Your task to perform on an android device: toggle data saver in the chrome app Image 0: 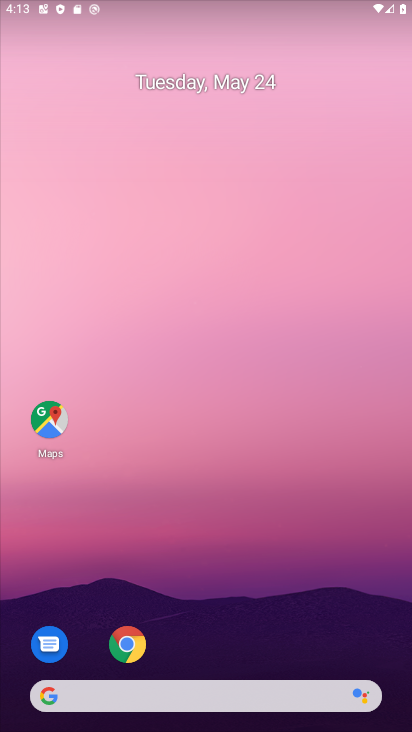
Step 0: drag from (276, 548) to (260, 9)
Your task to perform on an android device: toggle data saver in the chrome app Image 1: 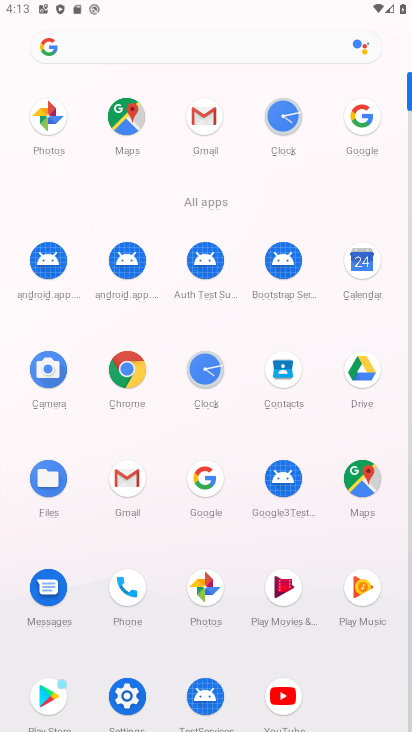
Step 1: click (124, 363)
Your task to perform on an android device: toggle data saver in the chrome app Image 2: 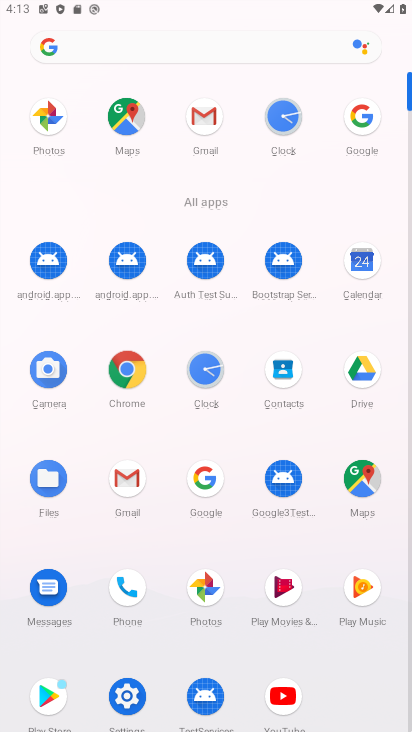
Step 2: click (125, 364)
Your task to perform on an android device: toggle data saver in the chrome app Image 3: 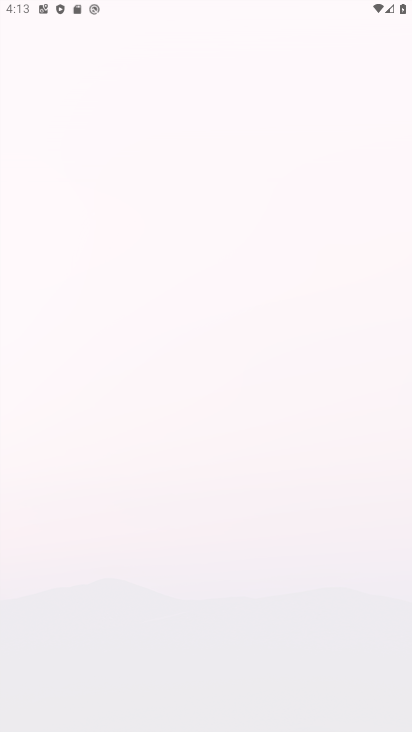
Step 3: click (126, 366)
Your task to perform on an android device: toggle data saver in the chrome app Image 4: 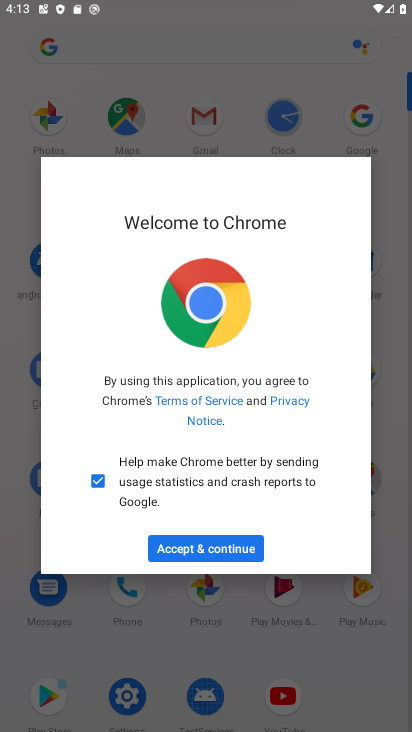
Step 4: click (211, 534)
Your task to perform on an android device: toggle data saver in the chrome app Image 5: 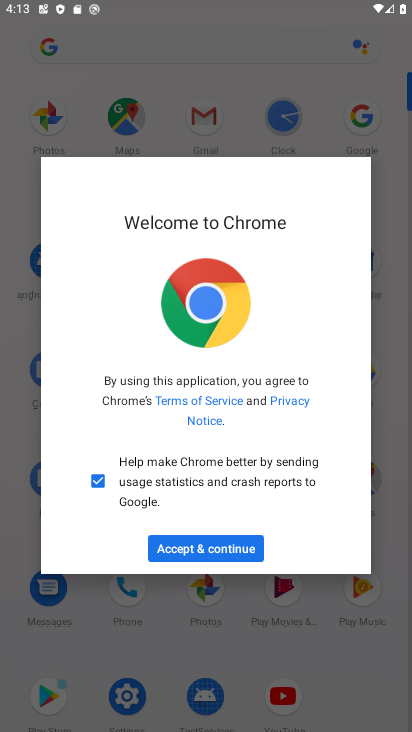
Step 5: click (208, 548)
Your task to perform on an android device: toggle data saver in the chrome app Image 6: 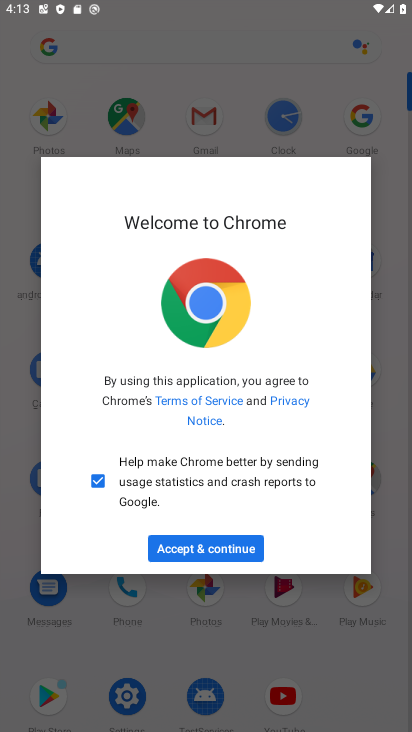
Step 6: click (209, 549)
Your task to perform on an android device: toggle data saver in the chrome app Image 7: 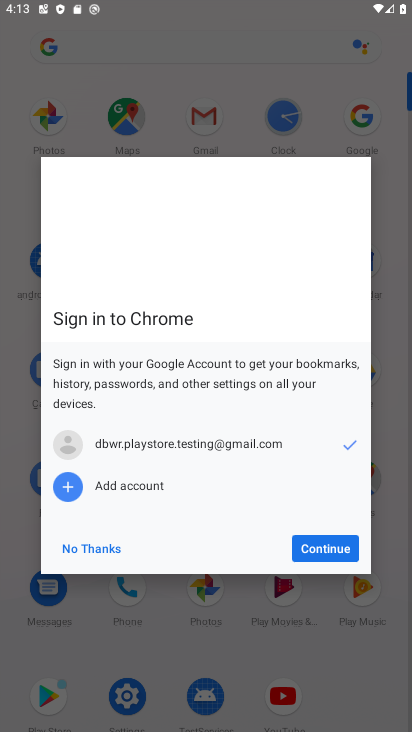
Step 7: click (209, 549)
Your task to perform on an android device: toggle data saver in the chrome app Image 8: 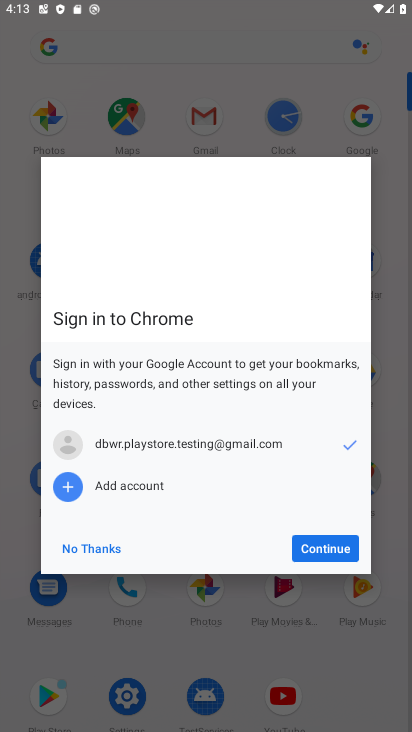
Step 8: click (210, 549)
Your task to perform on an android device: toggle data saver in the chrome app Image 9: 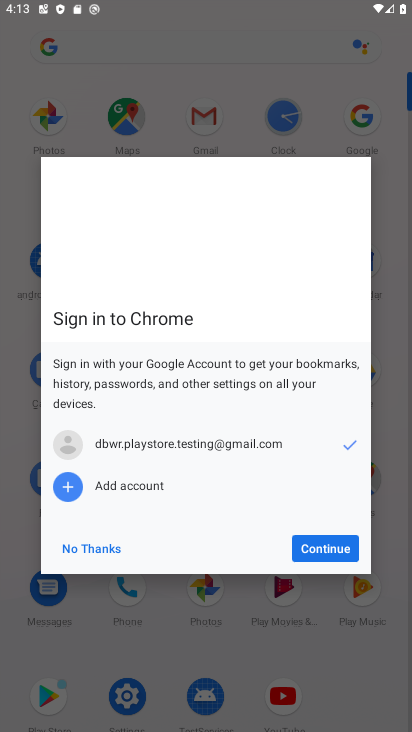
Step 9: click (338, 553)
Your task to perform on an android device: toggle data saver in the chrome app Image 10: 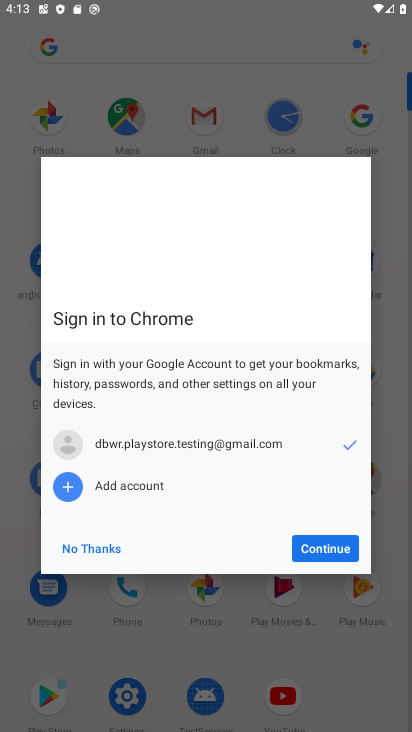
Step 10: click (338, 553)
Your task to perform on an android device: toggle data saver in the chrome app Image 11: 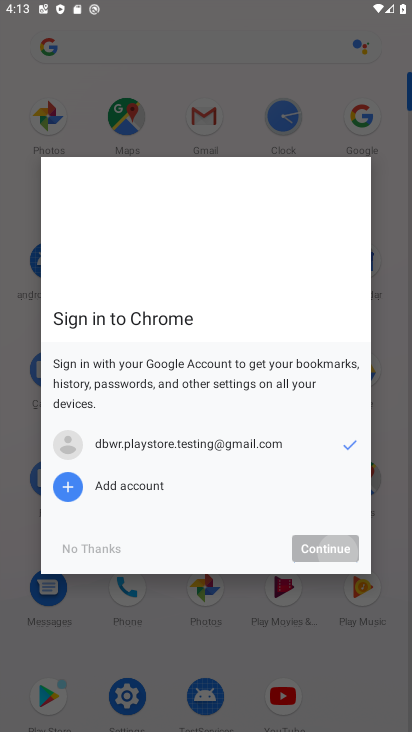
Step 11: click (338, 553)
Your task to perform on an android device: toggle data saver in the chrome app Image 12: 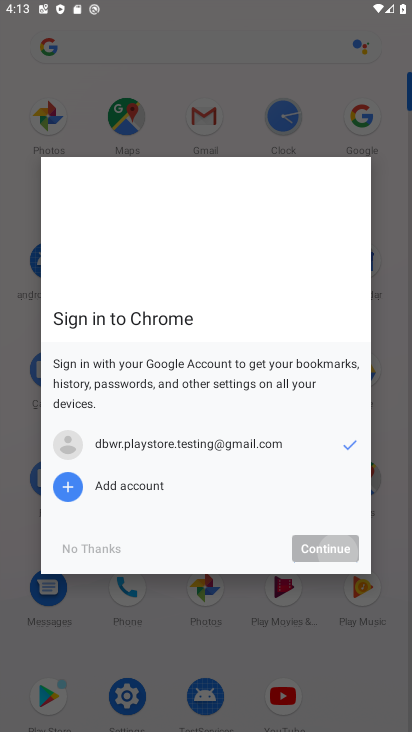
Step 12: click (338, 553)
Your task to perform on an android device: toggle data saver in the chrome app Image 13: 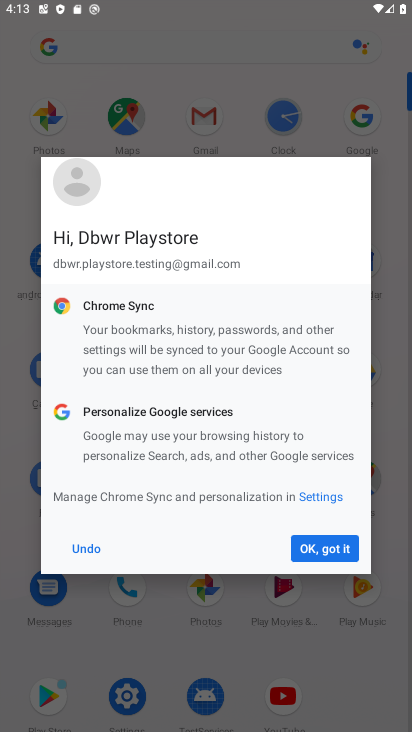
Step 13: click (338, 553)
Your task to perform on an android device: toggle data saver in the chrome app Image 14: 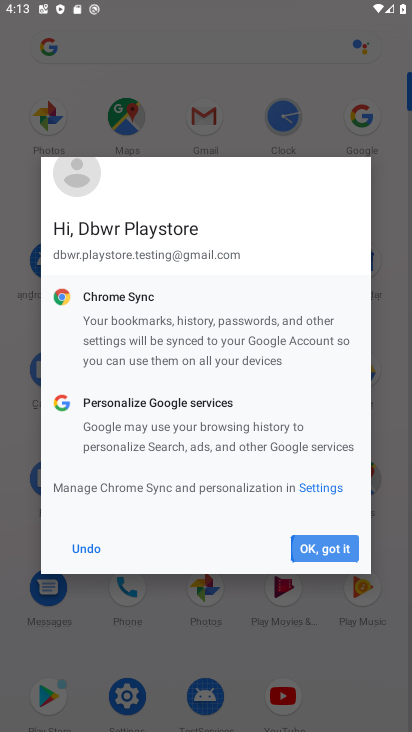
Step 14: click (338, 553)
Your task to perform on an android device: toggle data saver in the chrome app Image 15: 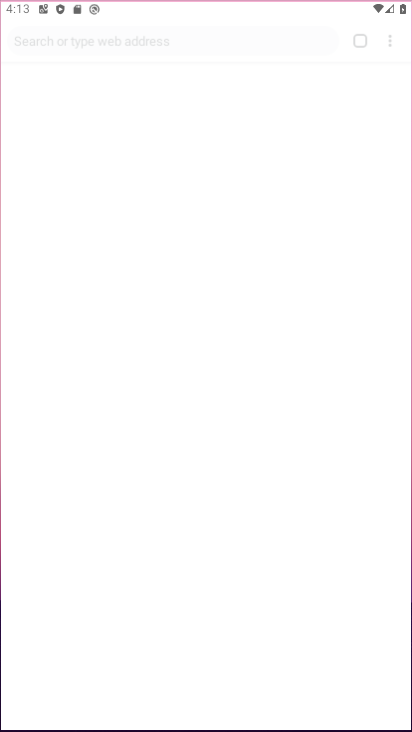
Step 15: click (332, 546)
Your task to perform on an android device: toggle data saver in the chrome app Image 16: 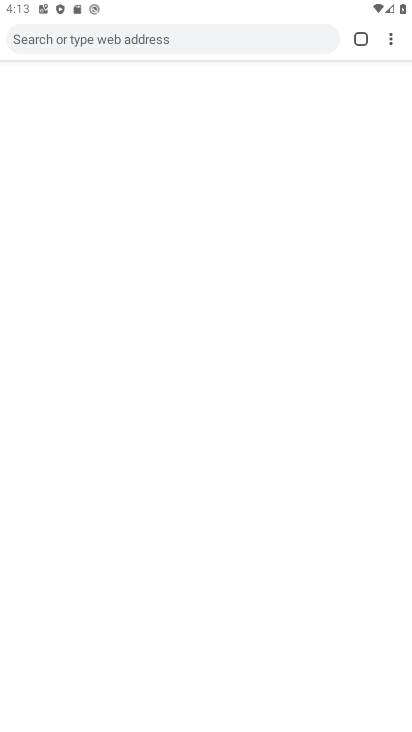
Step 16: click (332, 546)
Your task to perform on an android device: toggle data saver in the chrome app Image 17: 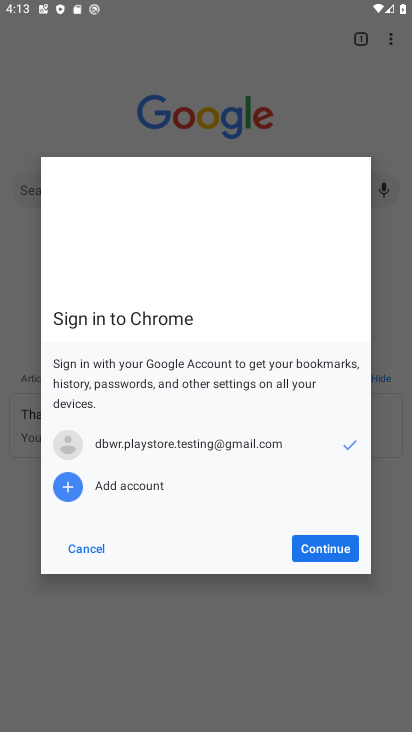
Step 17: click (325, 548)
Your task to perform on an android device: toggle data saver in the chrome app Image 18: 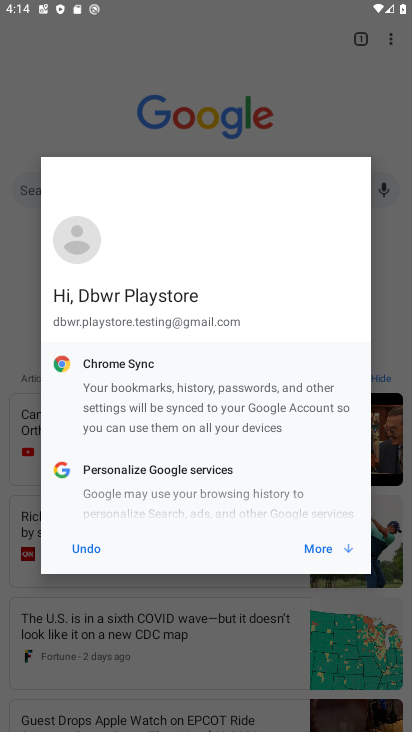
Step 18: click (322, 549)
Your task to perform on an android device: toggle data saver in the chrome app Image 19: 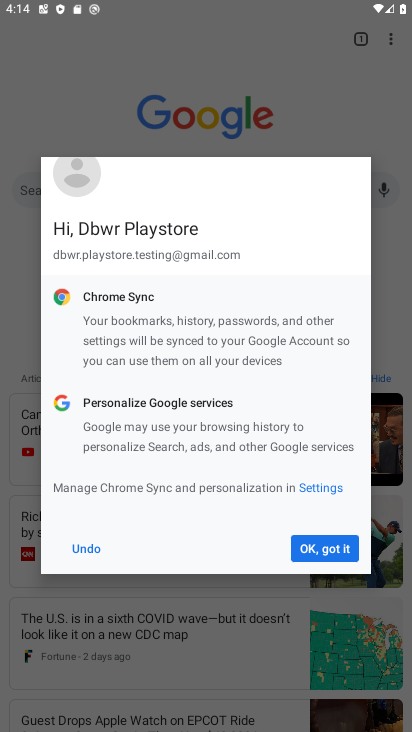
Step 19: click (319, 545)
Your task to perform on an android device: toggle data saver in the chrome app Image 20: 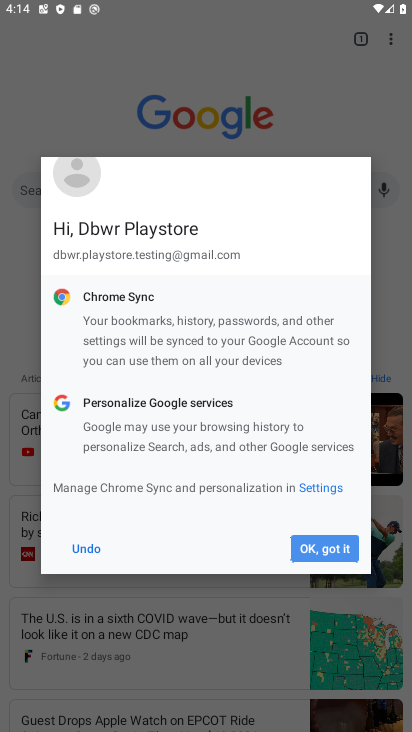
Step 20: click (318, 545)
Your task to perform on an android device: toggle data saver in the chrome app Image 21: 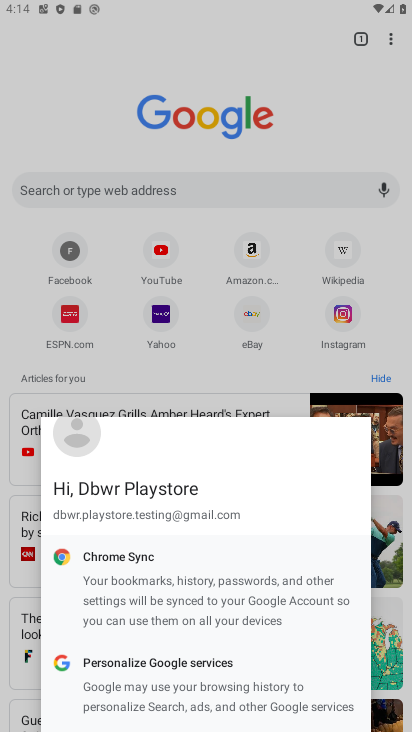
Step 21: click (318, 545)
Your task to perform on an android device: toggle data saver in the chrome app Image 22: 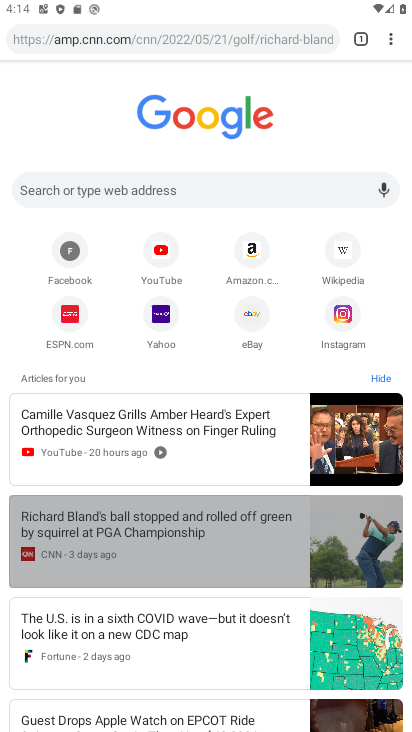
Step 22: click (318, 545)
Your task to perform on an android device: toggle data saver in the chrome app Image 23: 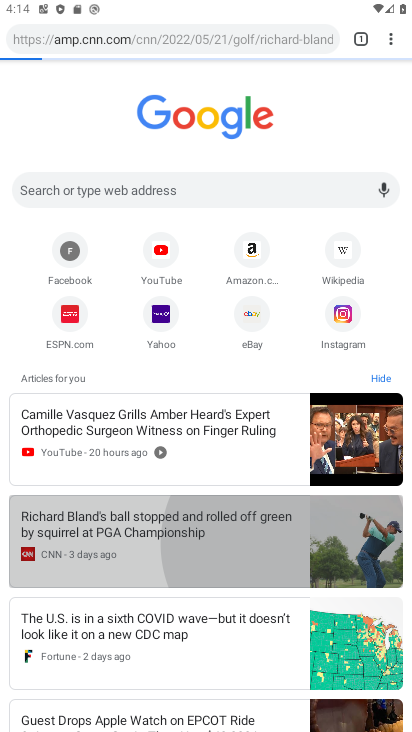
Step 23: click (318, 545)
Your task to perform on an android device: toggle data saver in the chrome app Image 24: 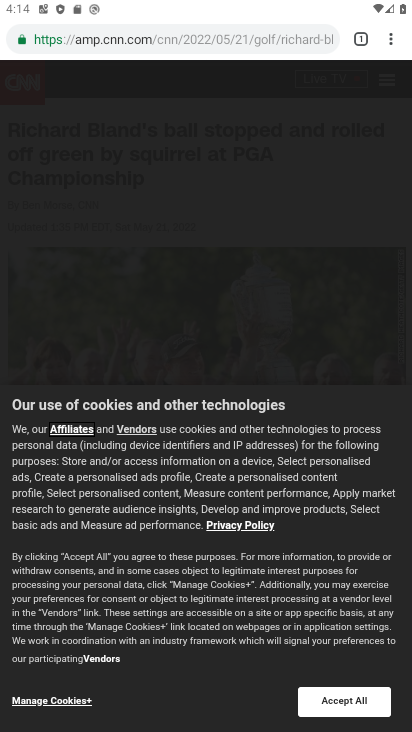
Step 24: drag from (390, 40) to (249, 466)
Your task to perform on an android device: toggle data saver in the chrome app Image 25: 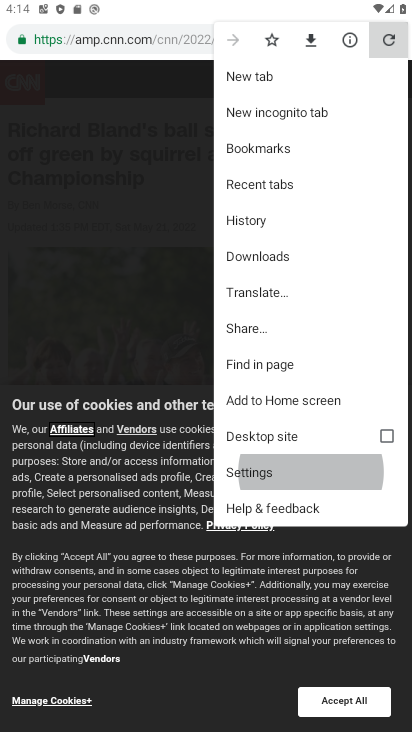
Step 25: drag from (386, 43) to (249, 466)
Your task to perform on an android device: toggle data saver in the chrome app Image 26: 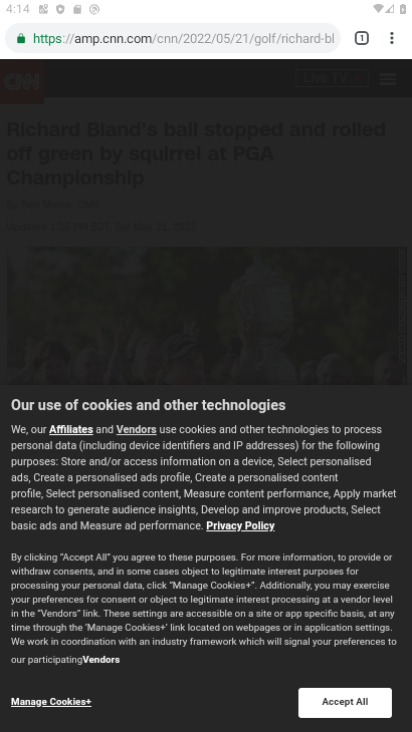
Step 26: drag from (386, 43) to (249, 466)
Your task to perform on an android device: toggle data saver in the chrome app Image 27: 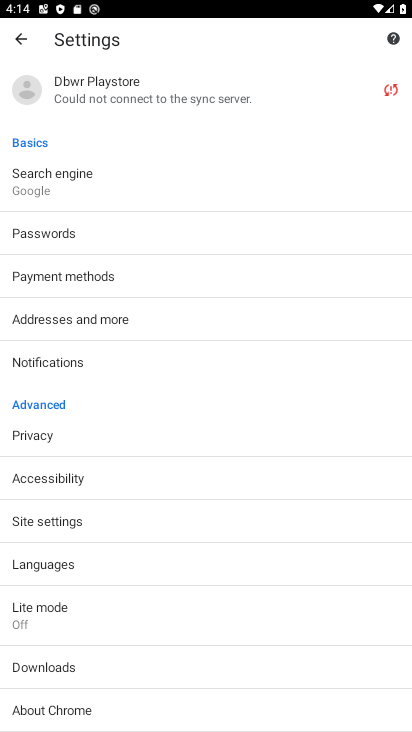
Step 27: click (253, 465)
Your task to perform on an android device: toggle data saver in the chrome app Image 28: 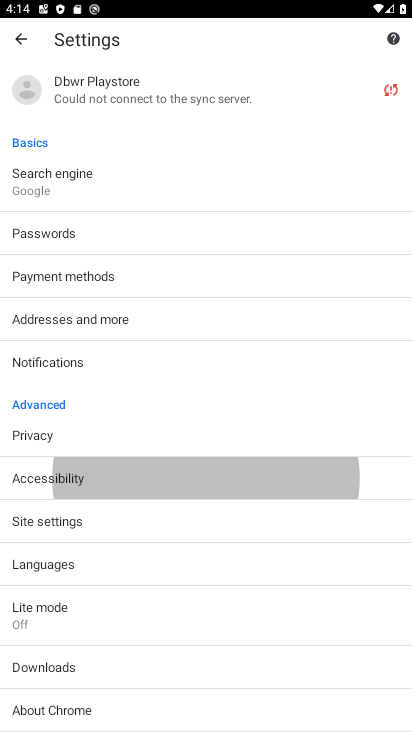
Step 28: click (258, 465)
Your task to perform on an android device: toggle data saver in the chrome app Image 29: 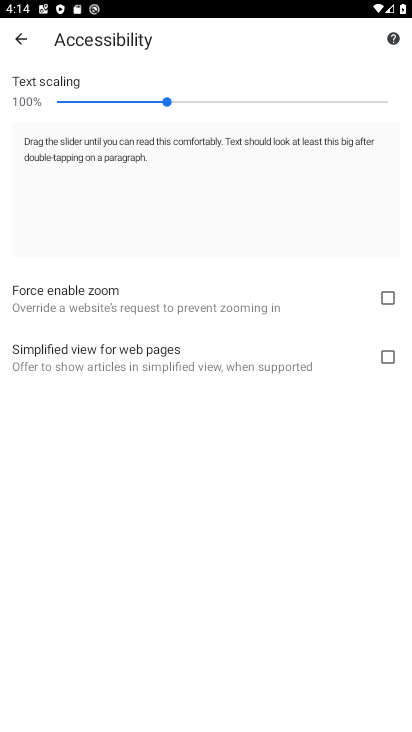
Step 29: click (14, 37)
Your task to perform on an android device: toggle data saver in the chrome app Image 30: 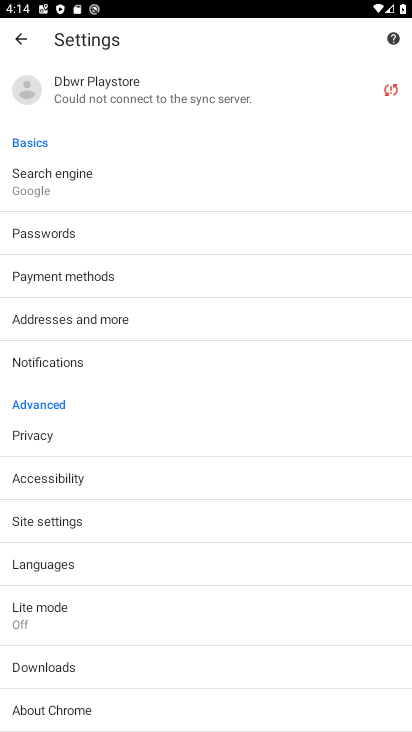
Step 30: click (42, 527)
Your task to perform on an android device: toggle data saver in the chrome app Image 31: 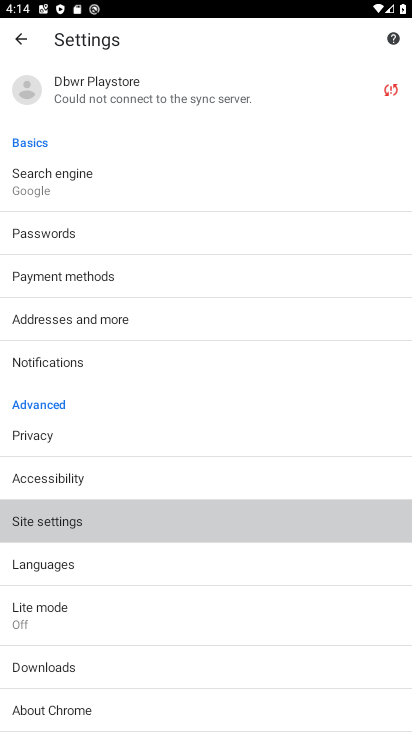
Step 31: click (55, 506)
Your task to perform on an android device: toggle data saver in the chrome app Image 32: 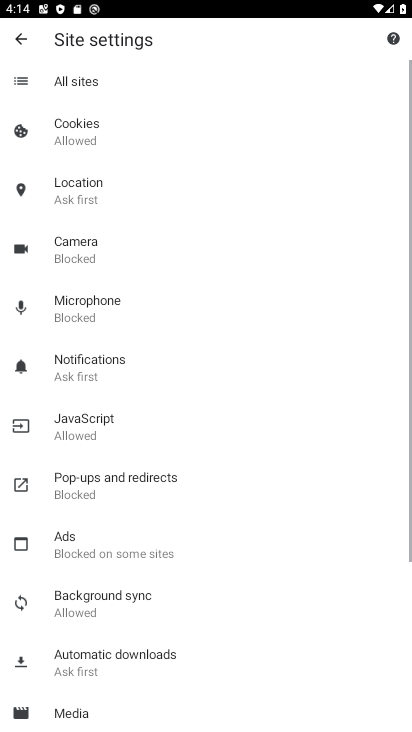
Step 32: click (43, 521)
Your task to perform on an android device: toggle data saver in the chrome app Image 33: 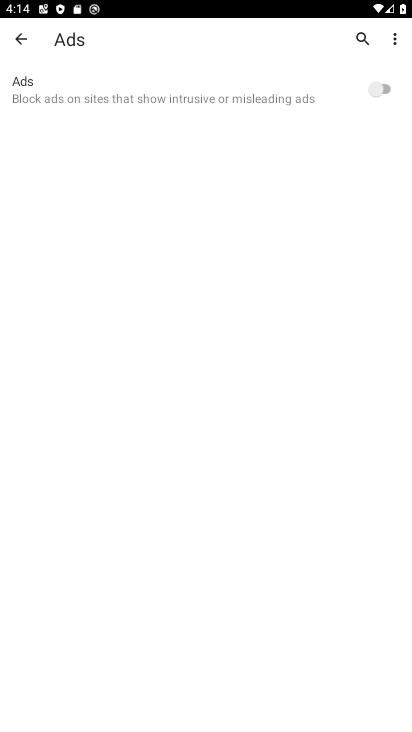
Step 33: click (20, 33)
Your task to perform on an android device: toggle data saver in the chrome app Image 34: 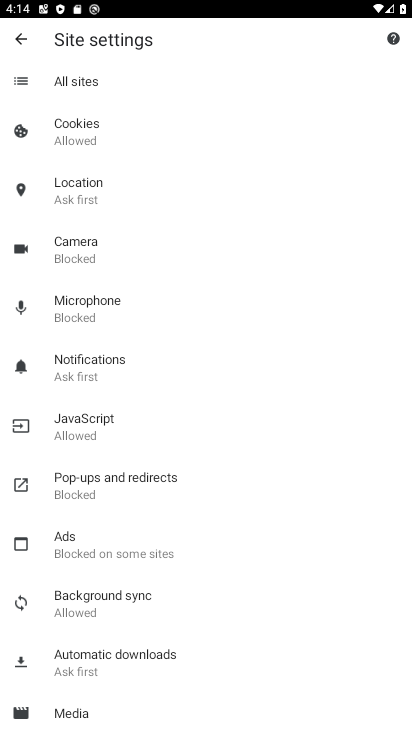
Step 34: click (16, 36)
Your task to perform on an android device: toggle data saver in the chrome app Image 35: 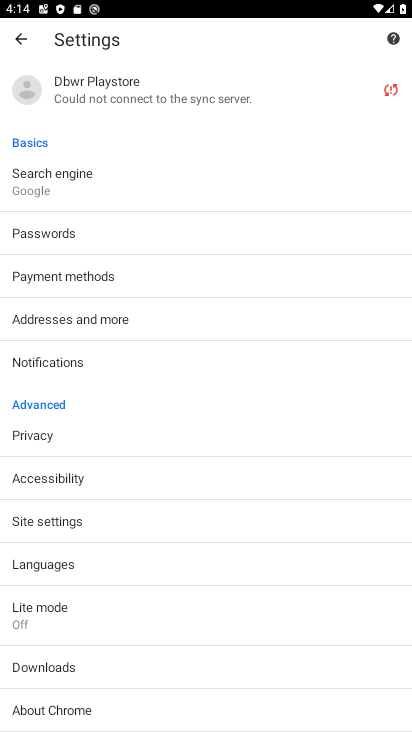
Step 35: click (37, 612)
Your task to perform on an android device: toggle data saver in the chrome app Image 36: 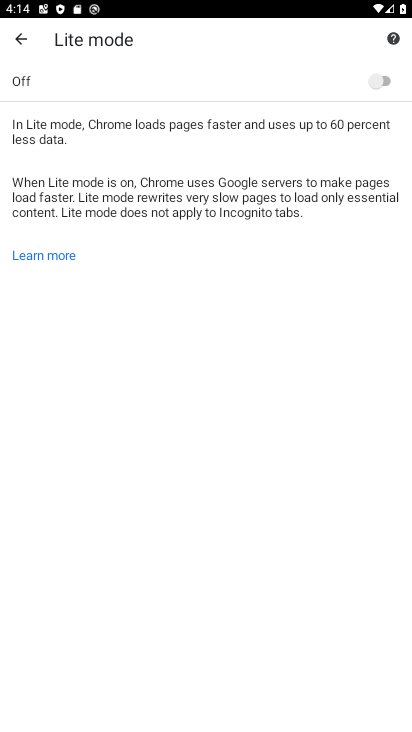
Step 36: click (370, 79)
Your task to perform on an android device: toggle data saver in the chrome app Image 37: 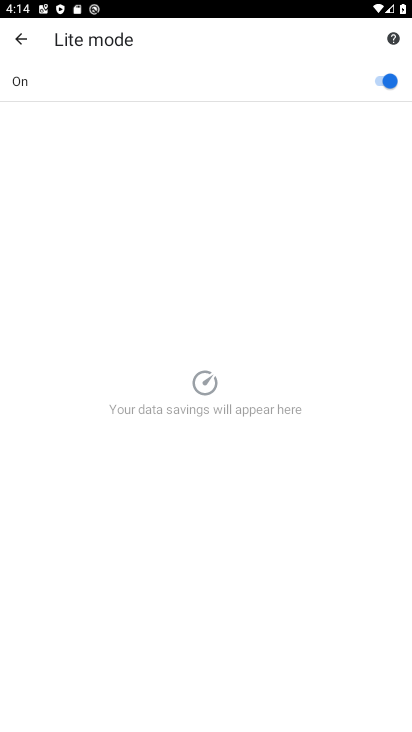
Step 37: task complete